Your task to perform on an android device: toggle sleep mode Image 0: 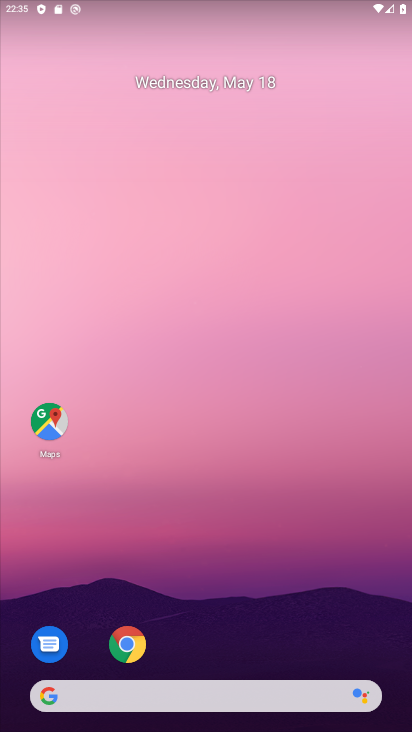
Step 0: drag from (273, 564) to (263, 144)
Your task to perform on an android device: toggle sleep mode Image 1: 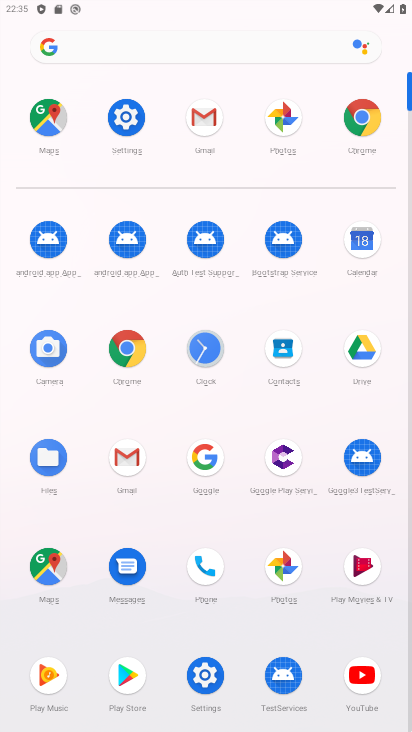
Step 1: click (131, 122)
Your task to perform on an android device: toggle sleep mode Image 2: 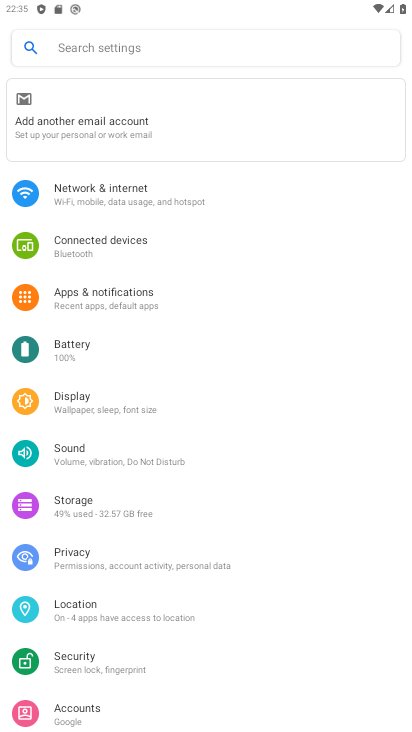
Step 2: click (98, 395)
Your task to perform on an android device: toggle sleep mode Image 3: 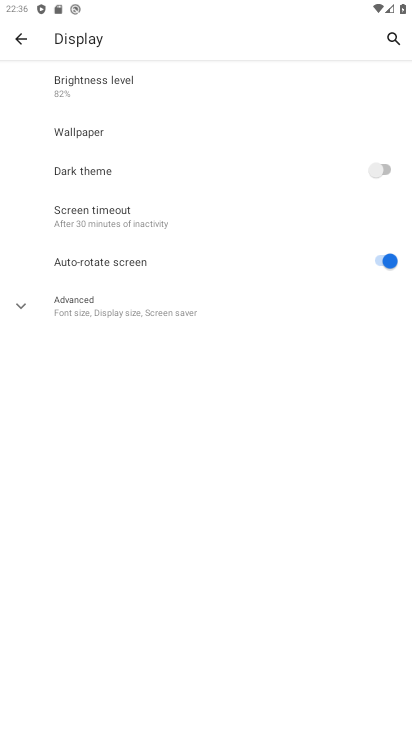
Step 3: click (127, 211)
Your task to perform on an android device: toggle sleep mode Image 4: 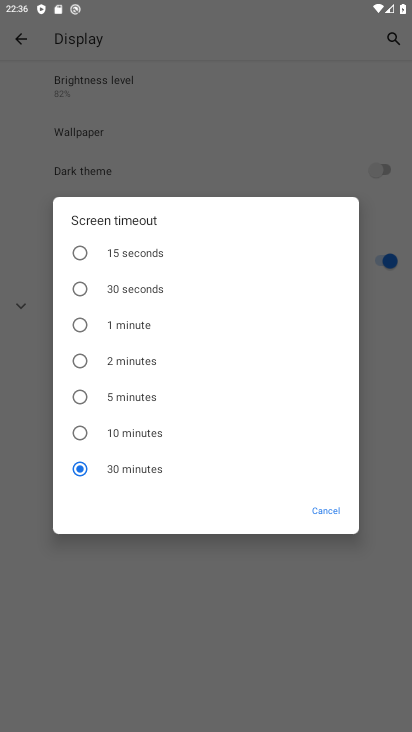
Step 4: click (129, 431)
Your task to perform on an android device: toggle sleep mode Image 5: 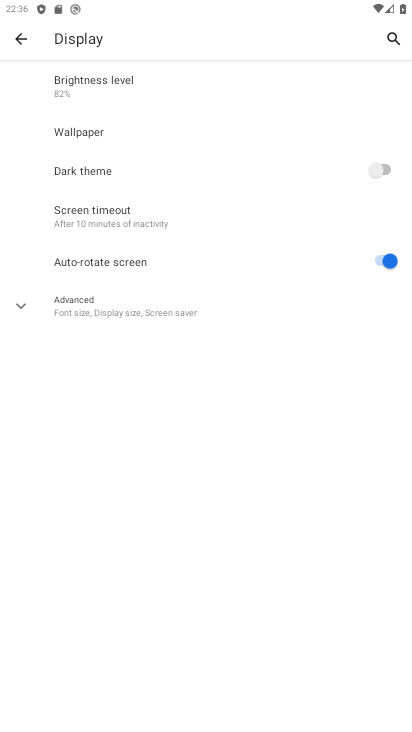
Step 5: task complete